Your task to perform on an android device: turn off notifications settings in the gmail app Image 0: 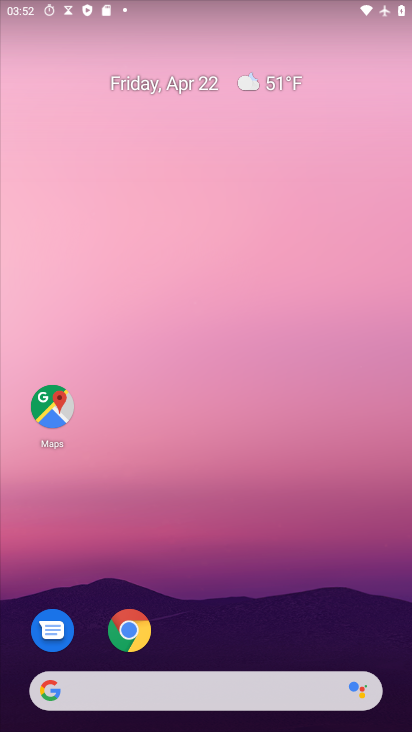
Step 0: drag from (279, 563) to (218, 77)
Your task to perform on an android device: turn off notifications settings in the gmail app Image 1: 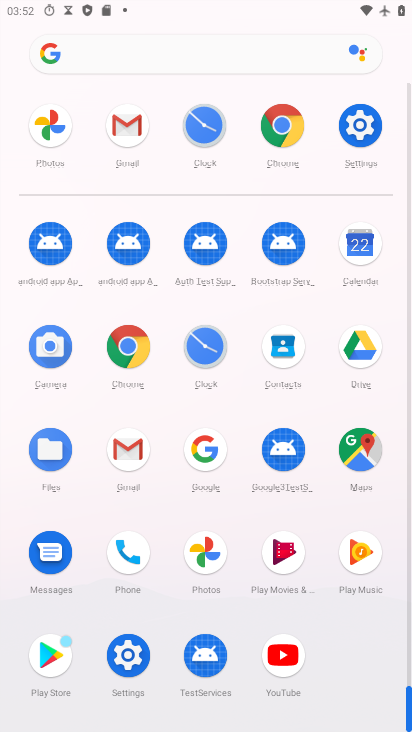
Step 1: drag from (12, 492) to (17, 217)
Your task to perform on an android device: turn off notifications settings in the gmail app Image 2: 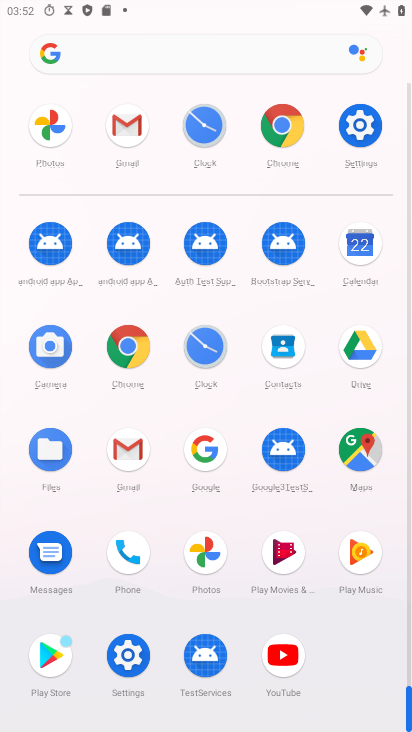
Step 2: click (129, 443)
Your task to perform on an android device: turn off notifications settings in the gmail app Image 3: 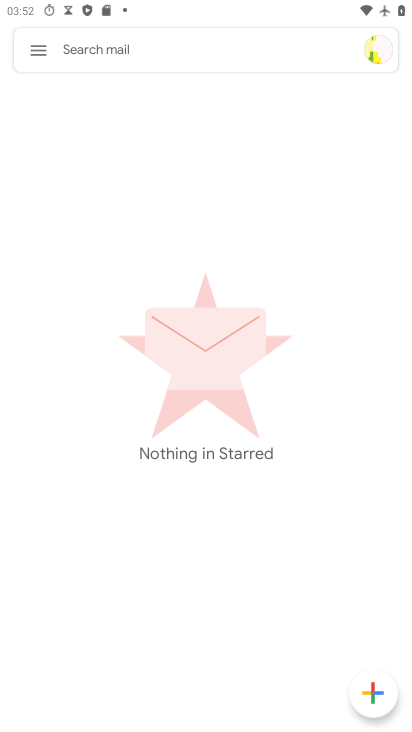
Step 3: click (18, 51)
Your task to perform on an android device: turn off notifications settings in the gmail app Image 4: 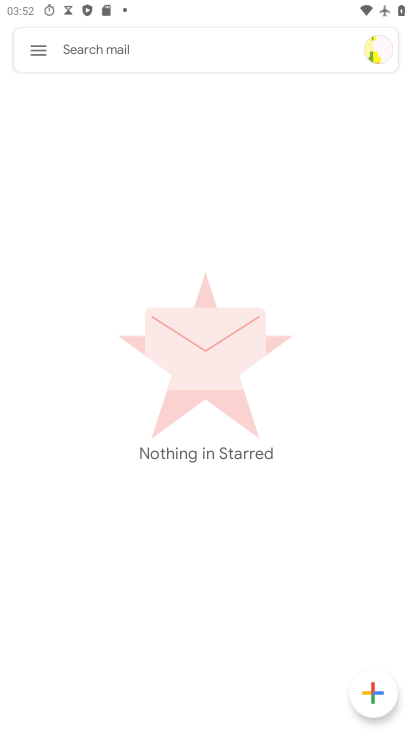
Step 4: click (41, 48)
Your task to perform on an android device: turn off notifications settings in the gmail app Image 5: 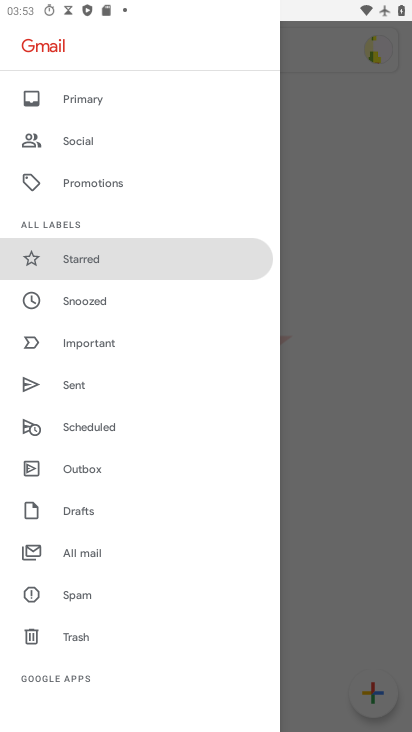
Step 5: drag from (146, 402) to (143, 95)
Your task to perform on an android device: turn off notifications settings in the gmail app Image 6: 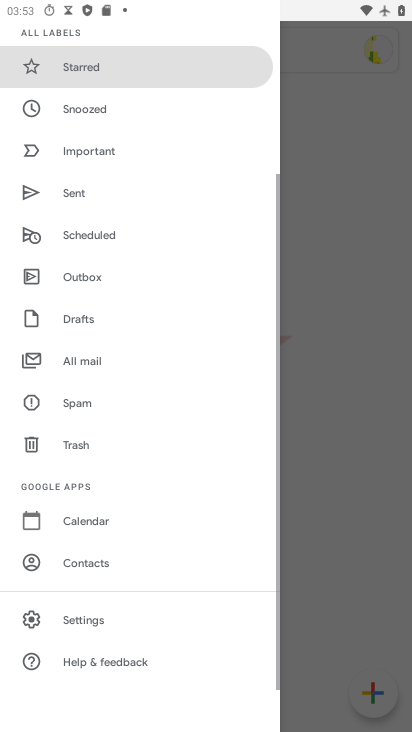
Step 6: drag from (168, 417) to (191, 134)
Your task to perform on an android device: turn off notifications settings in the gmail app Image 7: 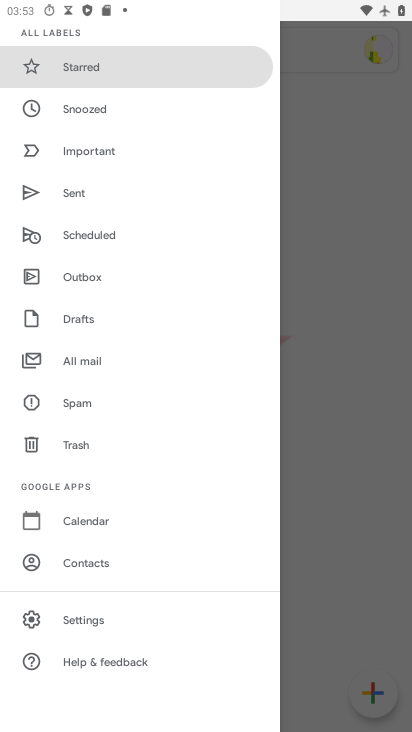
Step 7: drag from (150, 483) to (136, 162)
Your task to perform on an android device: turn off notifications settings in the gmail app Image 8: 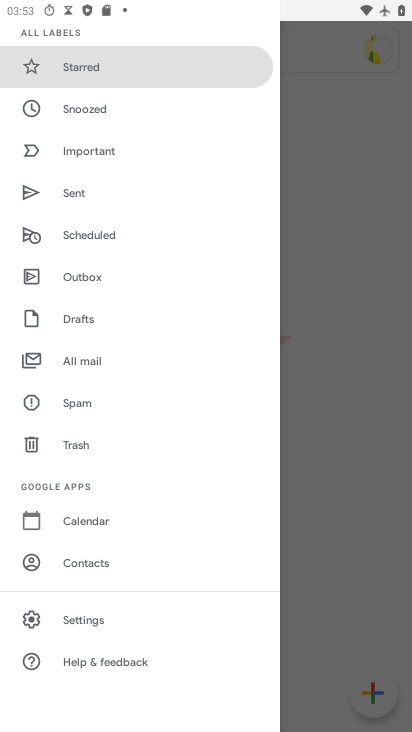
Step 8: drag from (133, 475) to (137, 183)
Your task to perform on an android device: turn off notifications settings in the gmail app Image 9: 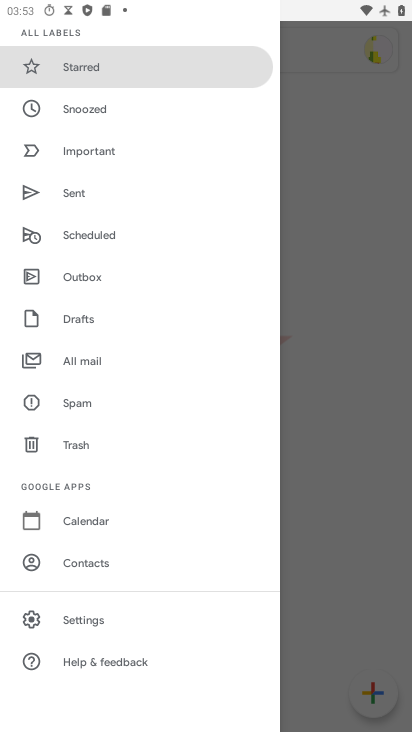
Step 9: click (89, 611)
Your task to perform on an android device: turn off notifications settings in the gmail app Image 10: 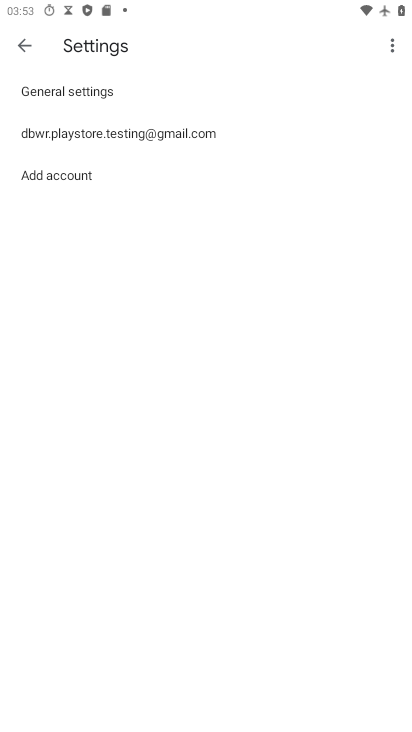
Step 10: click (100, 133)
Your task to perform on an android device: turn off notifications settings in the gmail app Image 11: 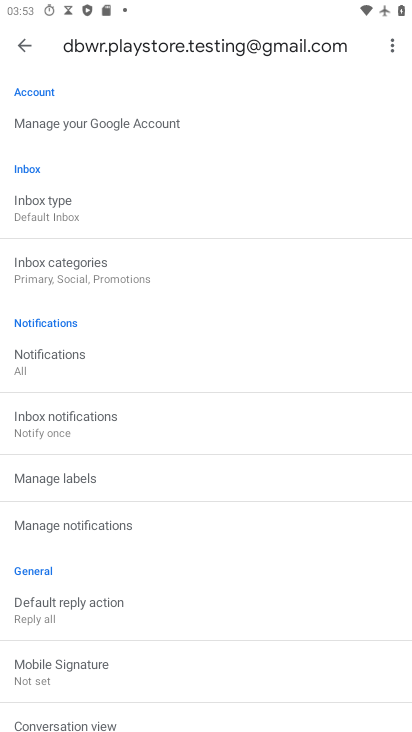
Step 11: click (101, 520)
Your task to perform on an android device: turn off notifications settings in the gmail app Image 12: 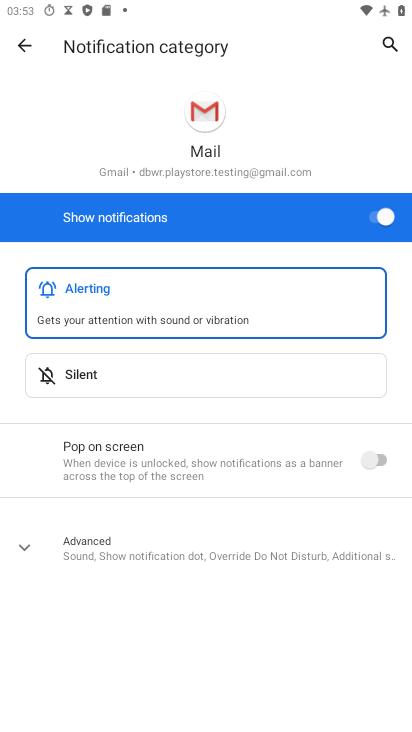
Step 12: click (376, 210)
Your task to perform on an android device: turn off notifications settings in the gmail app Image 13: 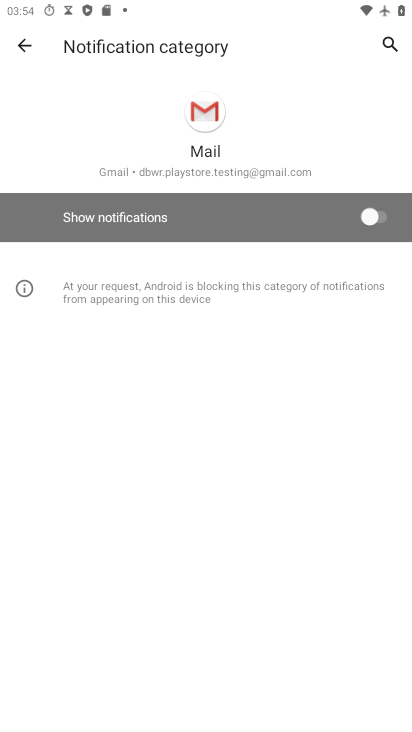
Step 13: task complete